Your task to perform on an android device: Open Yahoo.com Image 0: 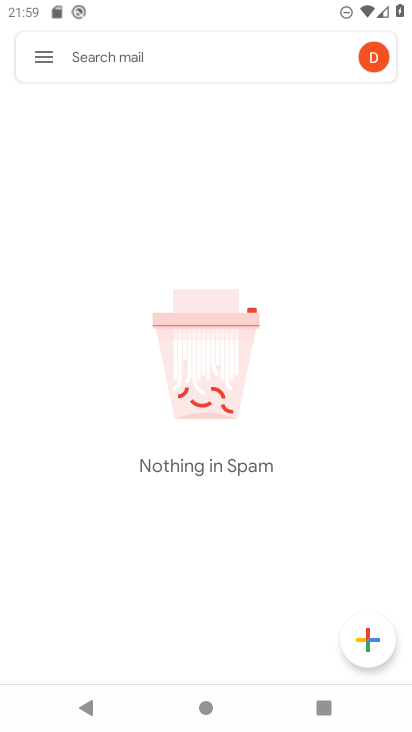
Step 0: press home button
Your task to perform on an android device: Open Yahoo.com Image 1: 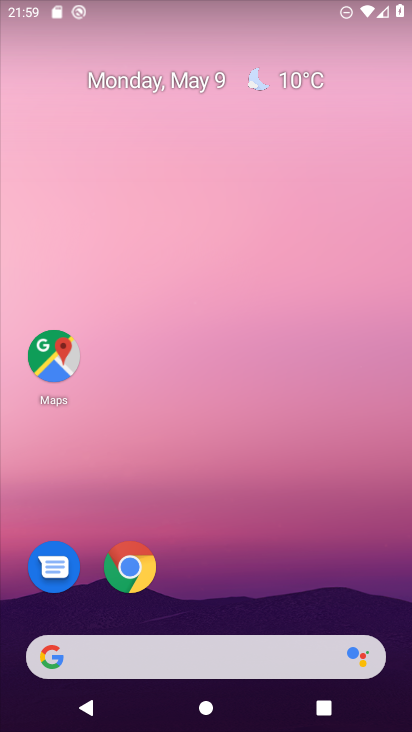
Step 1: click (271, 655)
Your task to perform on an android device: Open Yahoo.com Image 2: 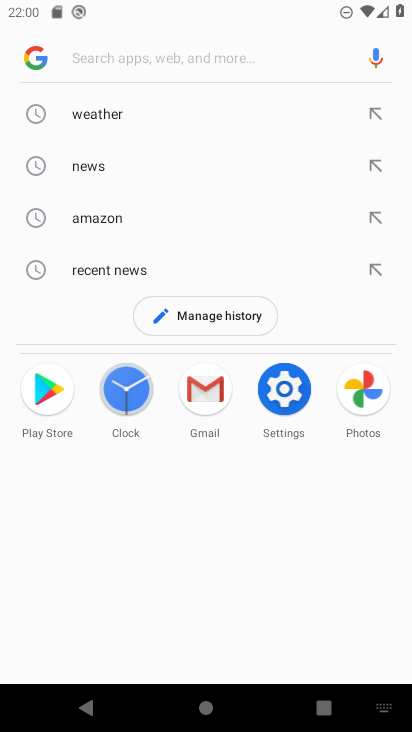
Step 2: type "yahoo.com"
Your task to perform on an android device: Open Yahoo.com Image 3: 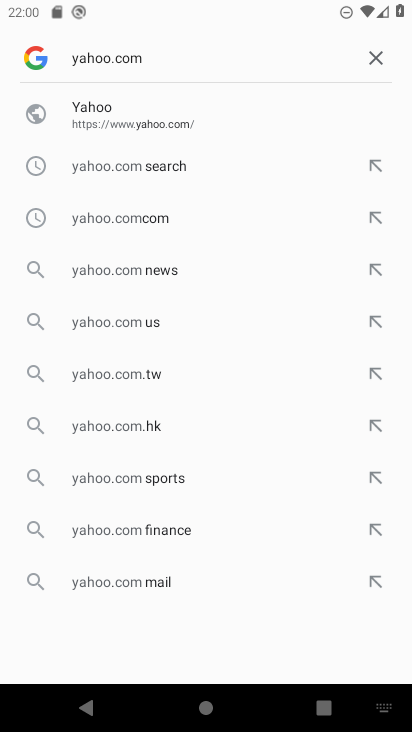
Step 3: click (67, 111)
Your task to perform on an android device: Open Yahoo.com Image 4: 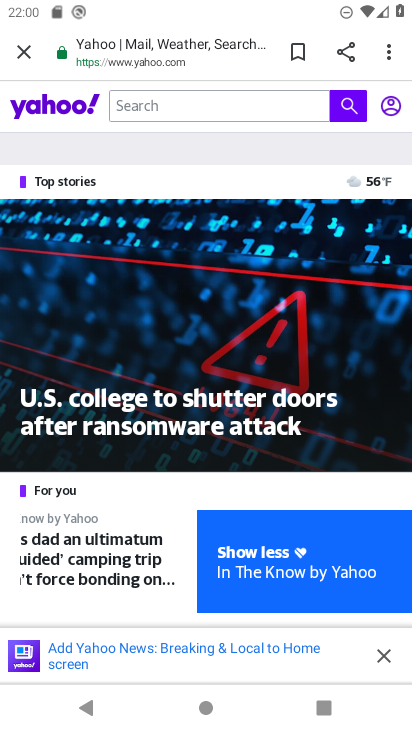
Step 4: task complete